Your task to perform on an android device: Open the map Image 0: 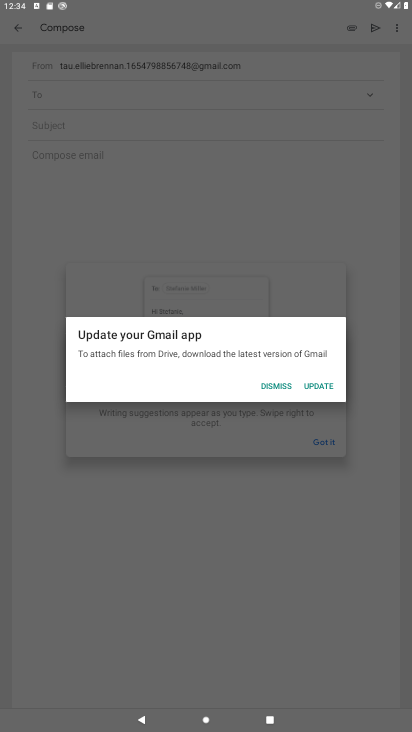
Step 0: press home button
Your task to perform on an android device: Open the map Image 1: 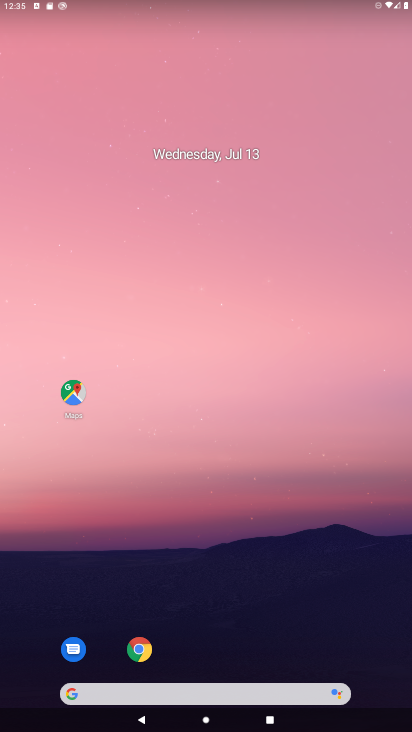
Step 1: click (72, 394)
Your task to perform on an android device: Open the map Image 2: 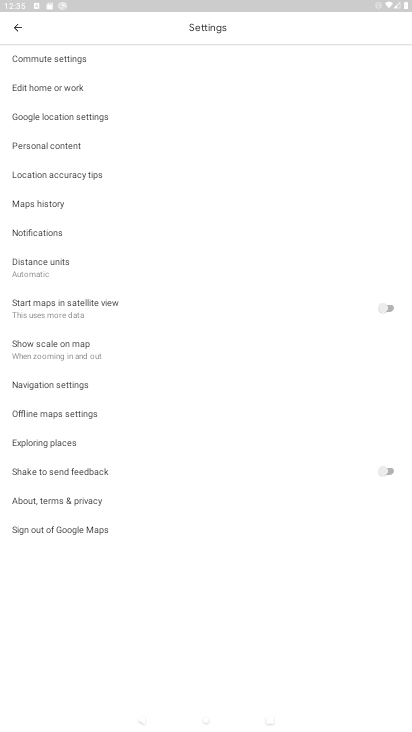
Step 2: task complete